Your task to perform on an android device: Open internet settings Image 0: 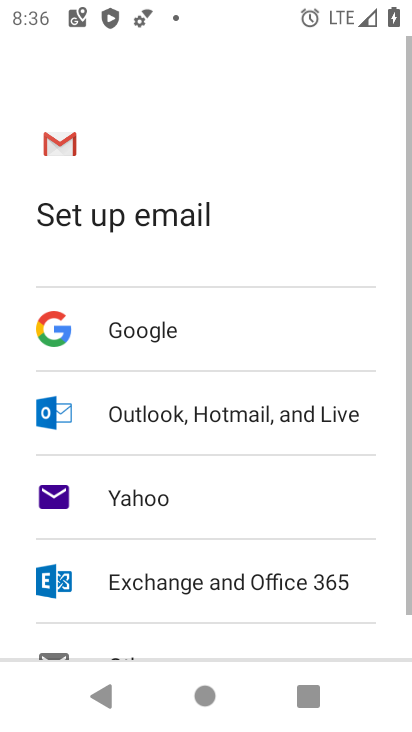
Step 0: press back button
Your task to perform on an android device: Open internet settings Image 1: 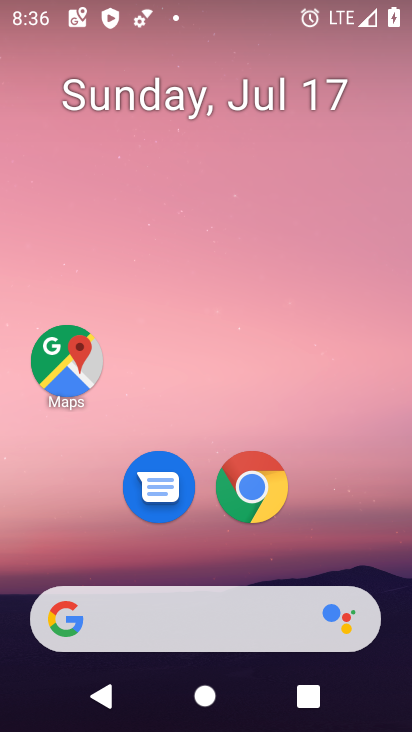
Step 1: drag from (149, 575) to (256, 12)
Your task to perform on an android device: Open internet settings Image 2: 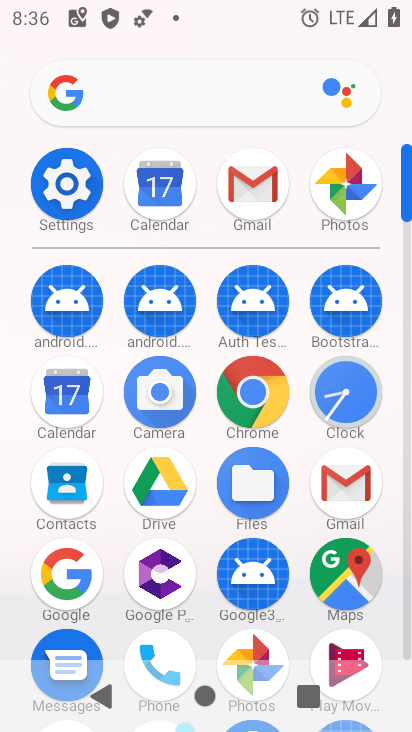
Step 2: click (61, 172)
Your task to perform on an android device: Open internet settings Image 3: 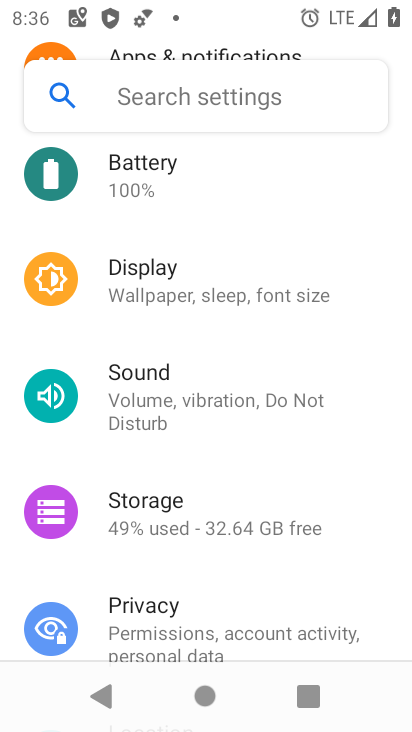
Step 3: drag from (275, 237) to (206, 727)
Your task to perform on an android device: Open internet settings Image 4: 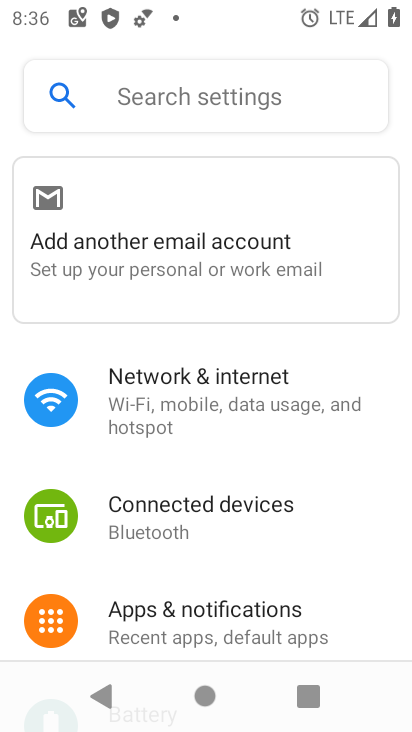
Step 4: click (151, 379)
Your task to perform on an android device: Open internet settings Image 5: 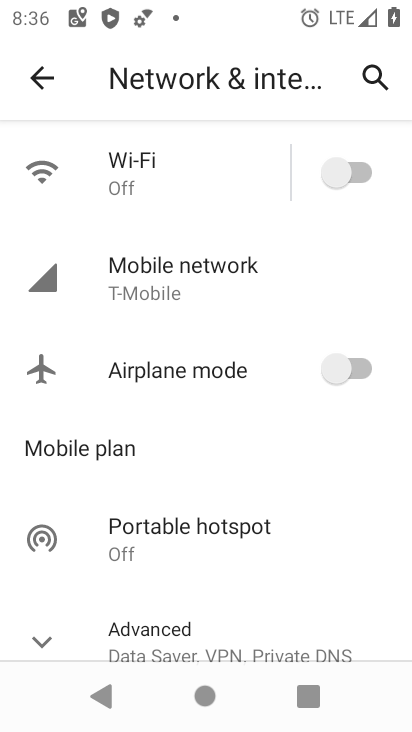
Step 5: task complete